Your task to perform on an android device: Show me recent news Image 0: 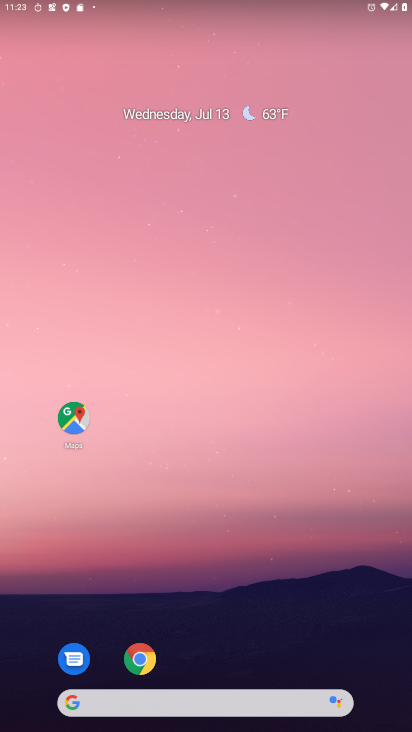
Step 0: drag from (306, 642) to (269, 205)
Your task to perform on an android device: Show me recent news Image 1: 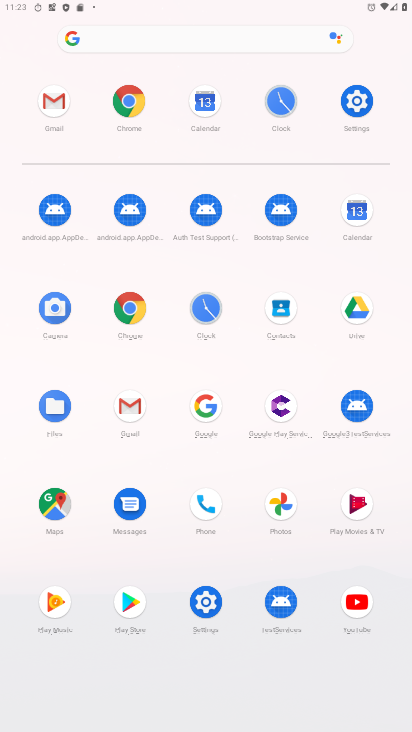
Step 1: click (133, 95)
Your task to perform on an android device: Show me recent news Image 2: 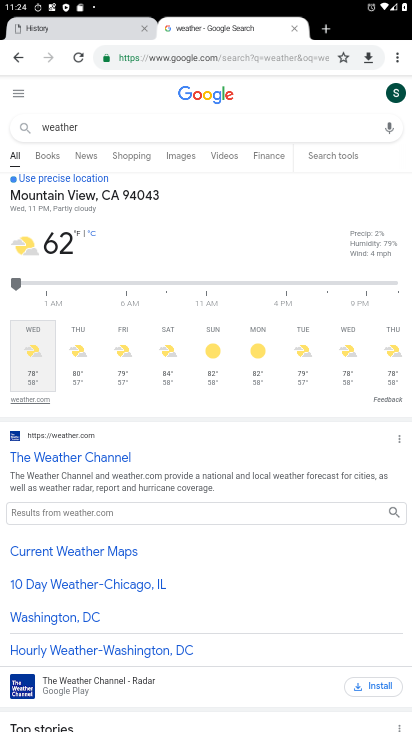
Step 2: click (240, 63)
Your task to perform on an android device: Show me recent news Image 3: 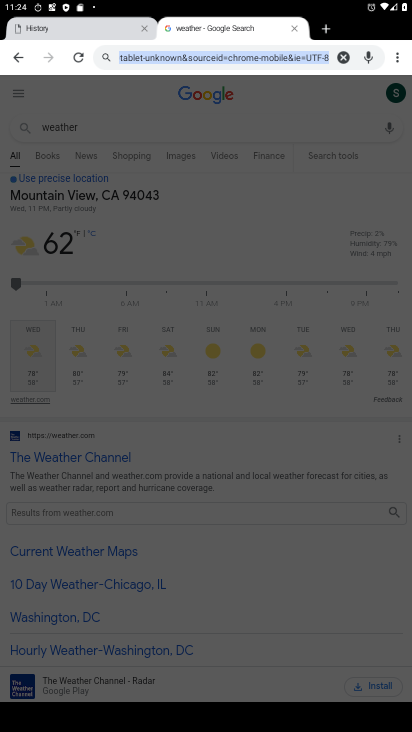
Step 3: type "news"
Your task to perform on an android device: Show me recent news Image 4: 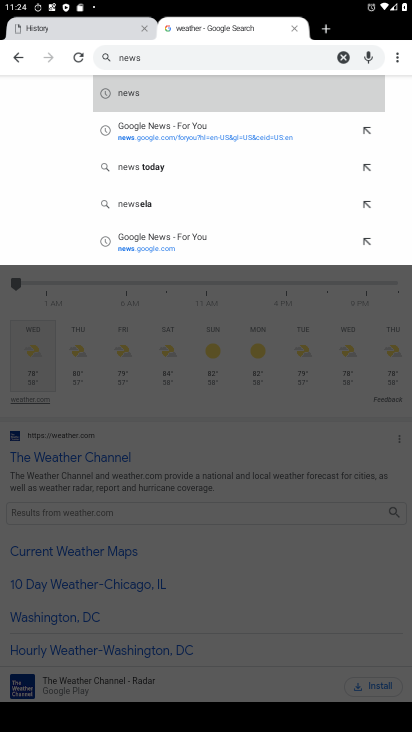
Step 4: click (131, 96)
Your task to perform on an android device: Show me recent news Image 5: 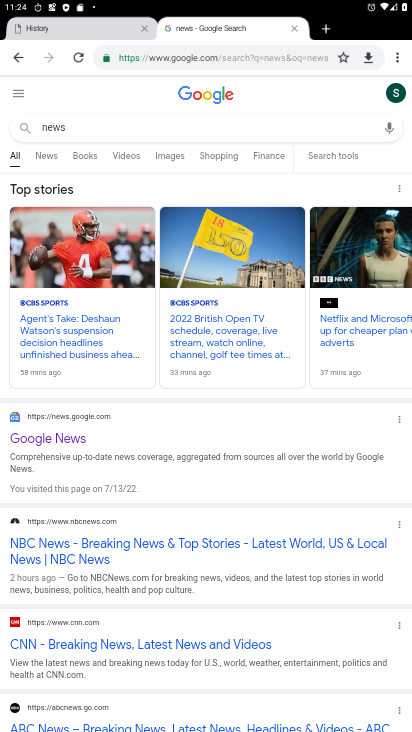
Step 5: click (63, 446)
Your task to perform on an android device: Show me recent news Image 6: 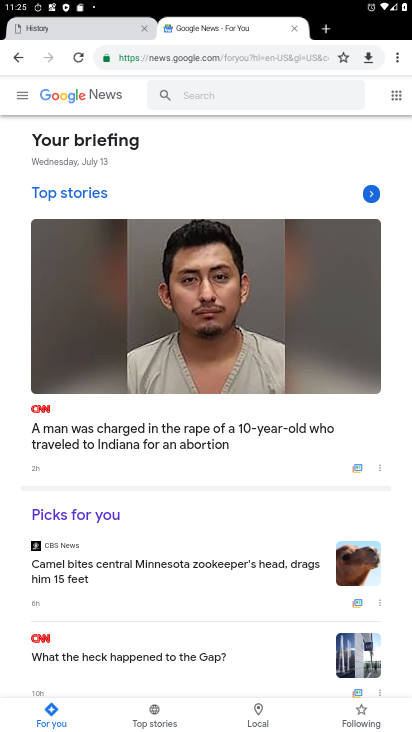
Step 6: task complete